Your task to perform on an android device: check google app version Image 0: 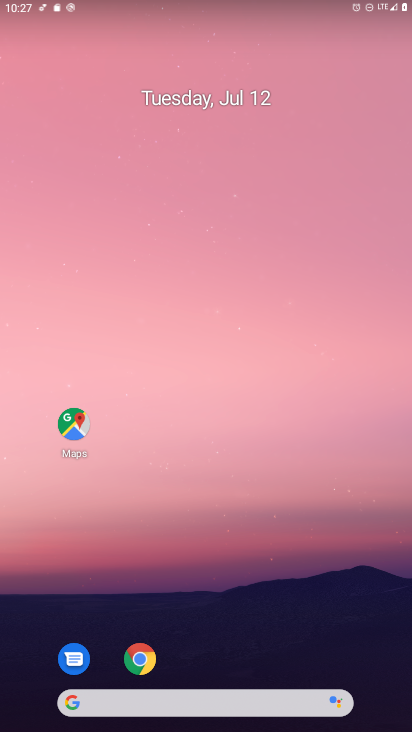
Step 0: click (215, 225)
Your task to perform on an android device: check google app version Image 1: 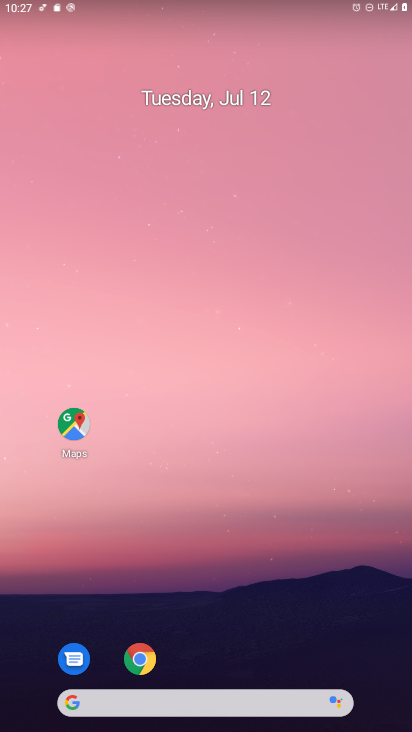
Step 1: drag from (236, 685) to (200, 550)
Your task to perform on an android device: check google app version Image 2: 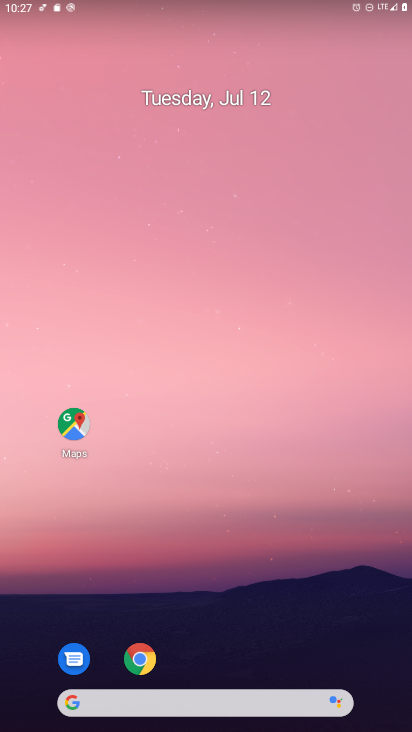
Step 2: drag from (170, 710) to (172, 170)
Your task to perform on an android device: check google app version Image 3: 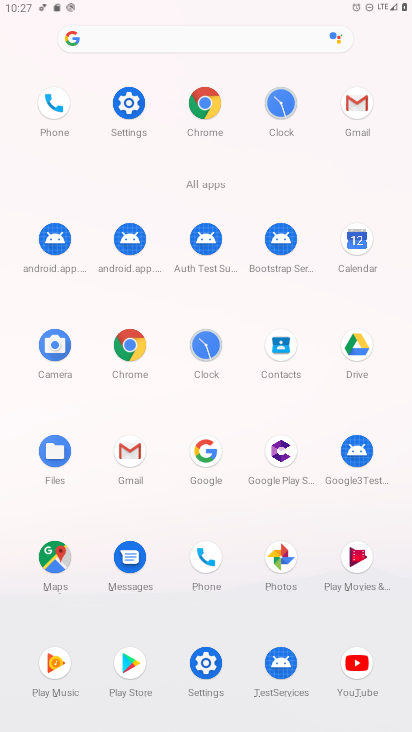
Step 3: click (206, 457)
Your task to perform on an android device: check google app version Image 4: 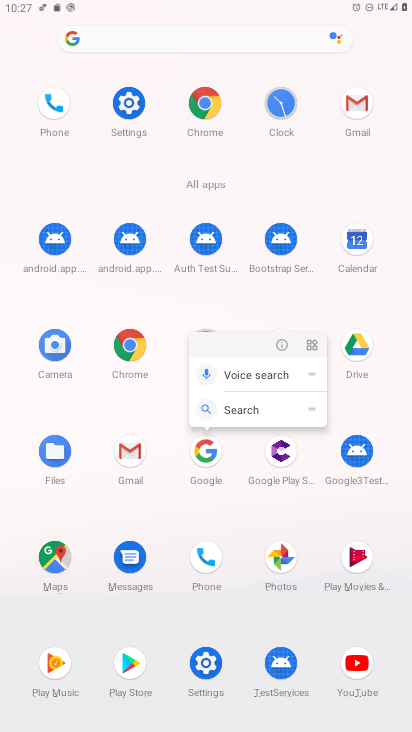
Step 4: click (283, 348)
Your task to perform on an android device: check google app version Image 5: 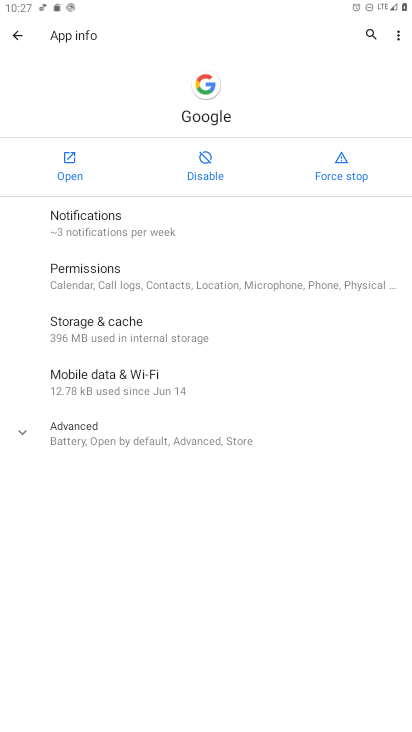
Step 5: click (100, 443)
Your task to perform on an android device: check google app version Image 6: 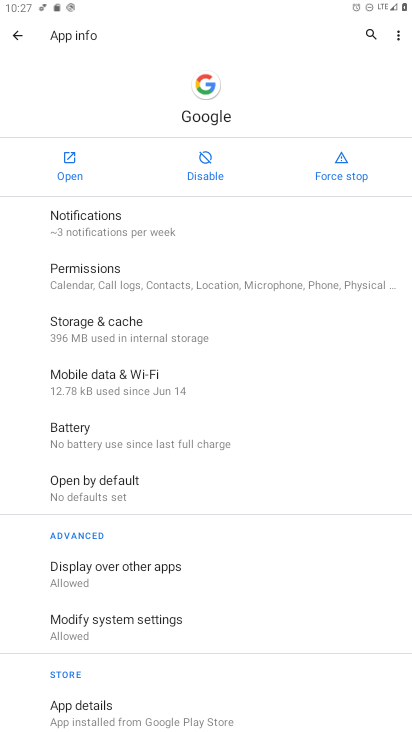
Step 6: task complete